Your task to perform on an android device: empty trash in google photos Image 0: 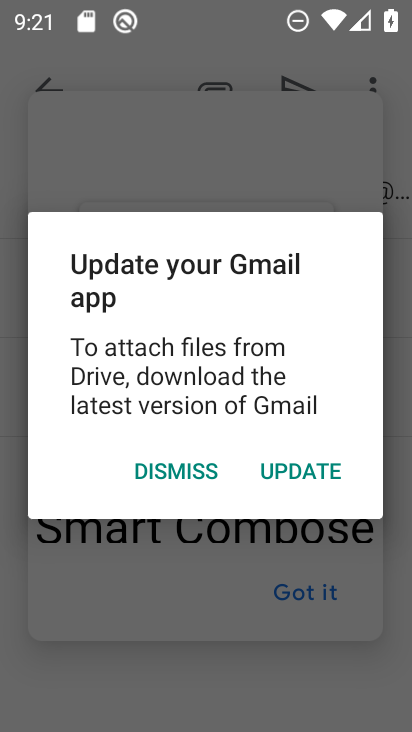
Step 0: press home button
Your task to perform on an android device: empty trash in google photos Image 1: 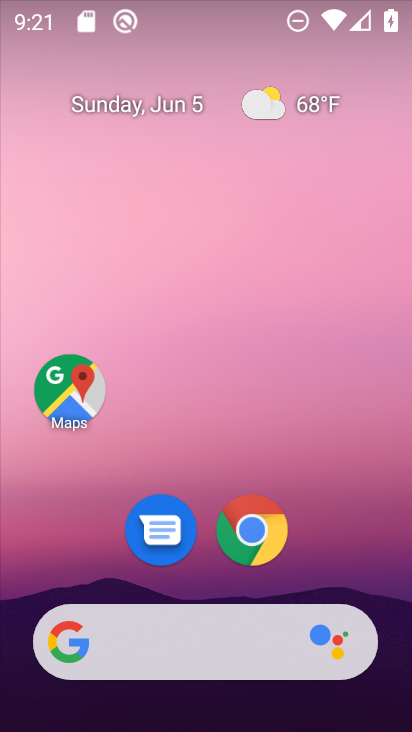
Step 1: drag from (383, 607) to (370, 78)
Your task to perform on an android device: empty trash in google photos Image 2: 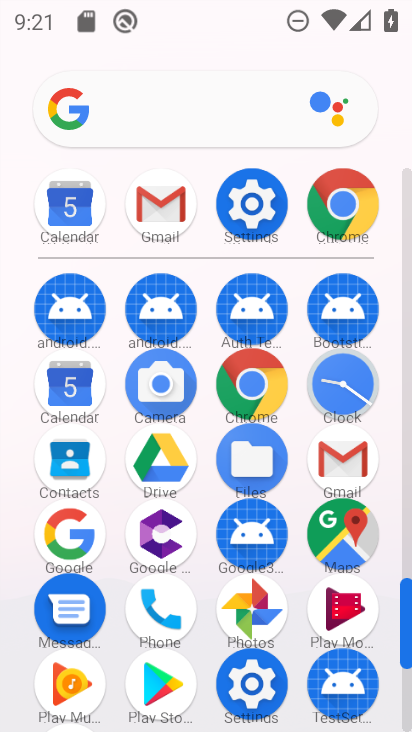
Step 2: drag from (405, 560) to (405, 488)
Your task to perform on an android device: empty trash in google photos Image 3: 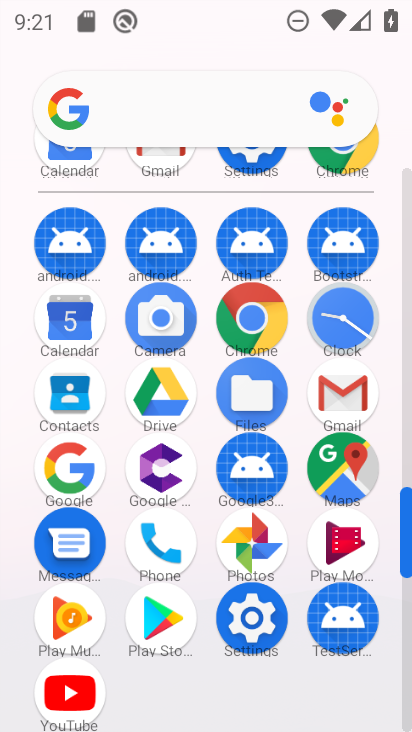
Step 3: click (252, 547)
Your task to perform on an android device: empty trash in google photos Image 4: 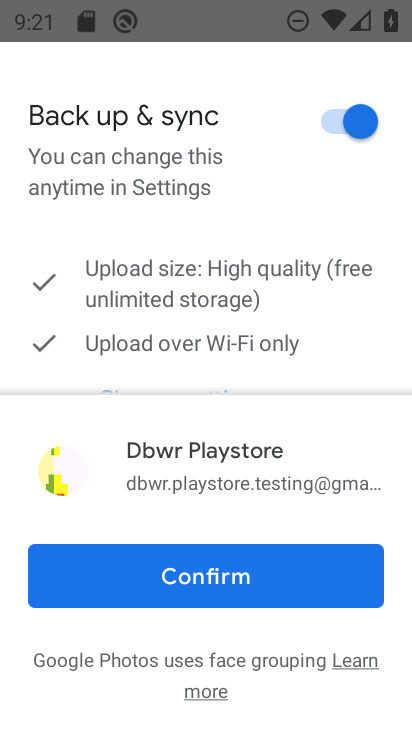
Step 4: click (205, 572)
Your task to perform on an android device: empty trash in google photos Image 5: 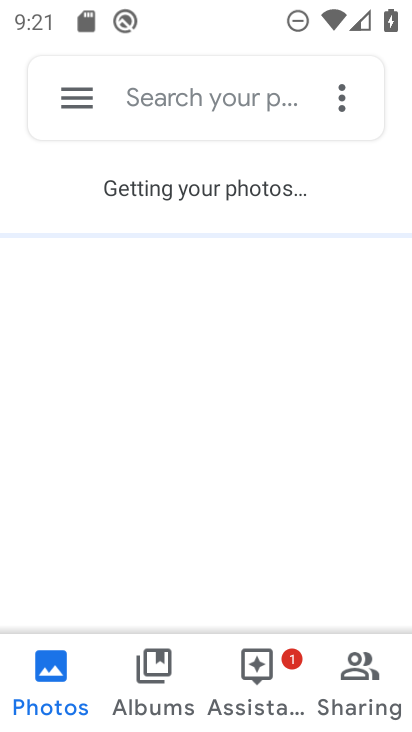
Step 5: click (69, 99)
Your task to perform on an android device: empty trash in google photos Image 6: 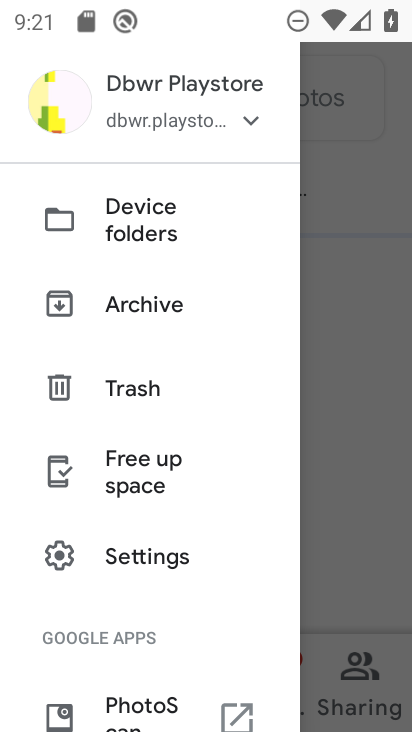
Step 6: click (119, 392)
Your task to perform on an android device: empty trash in google photos Image 7: 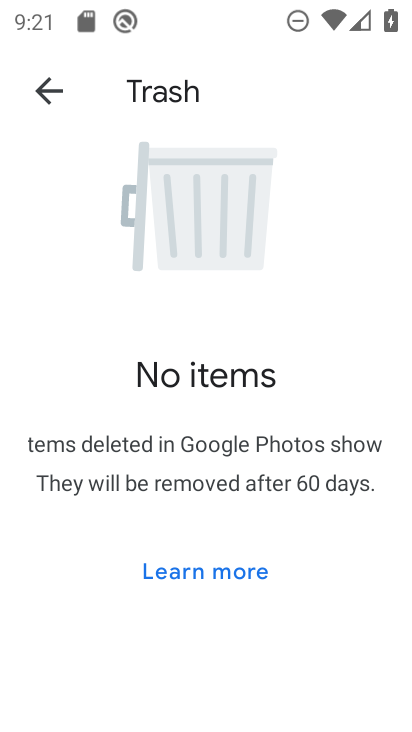
Step 7: task complete